Your task to perform on an android device: turn on the 24-hour format for clock Image 0: 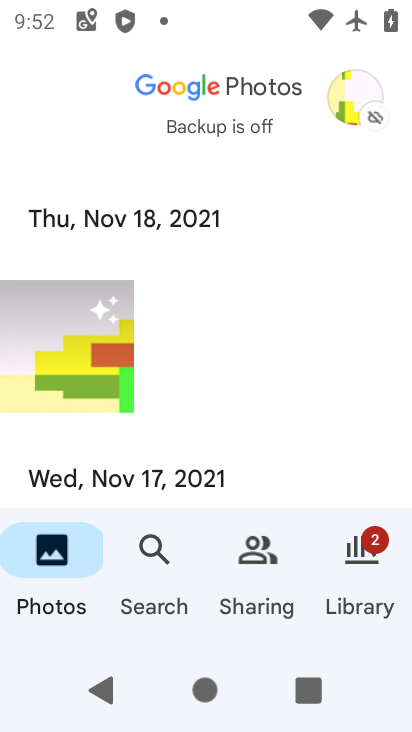
Step 0: press home button
Your task to perform on an android device: turn on the 24-hour format for clock Image 1: 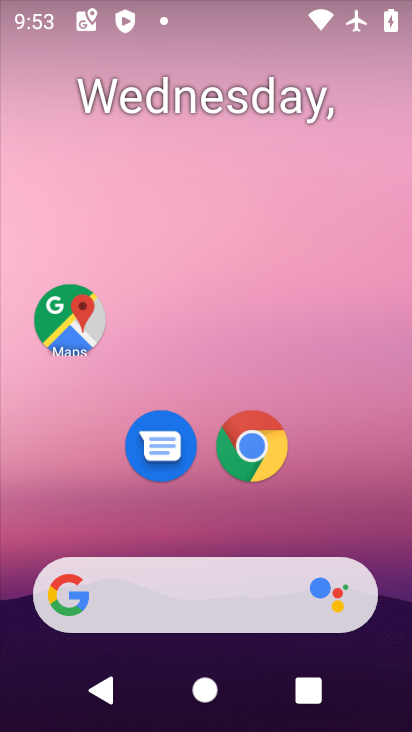
Step 1: press home button
Your task to perform on an android device: turn on the 24-hour format for clock Image 2: 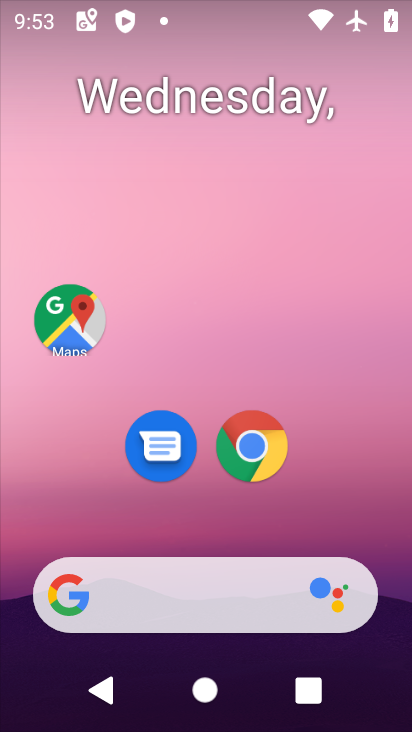
Step 2: drag from (159, 594) to (270, 157)
Your task to perform on an android device: turn on the 24-hour format for clock Image 3: 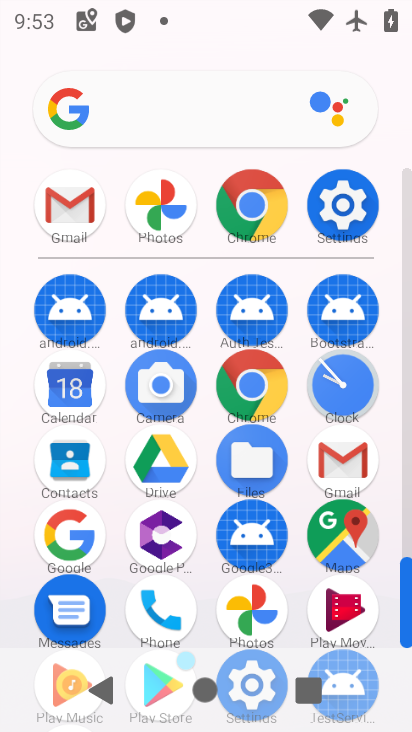
Step 3: click (336, 400)
Your task to perform on an android device: turn on the 24-hour format for clock Image 4: 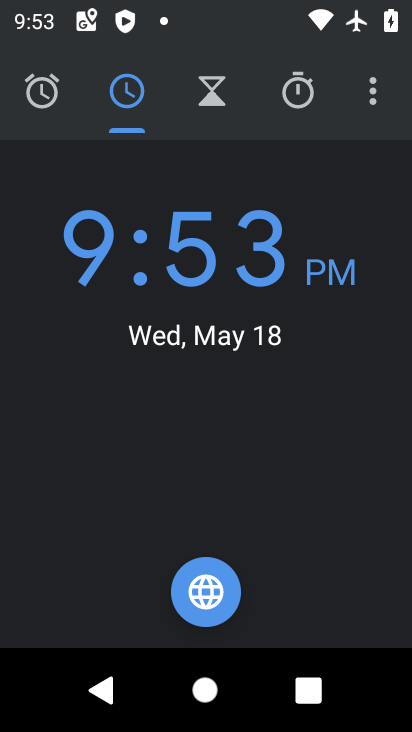
Step 4: click (377, 96)
Your task to perform on an android device: turn on the 24-hour format for clock Image 5: 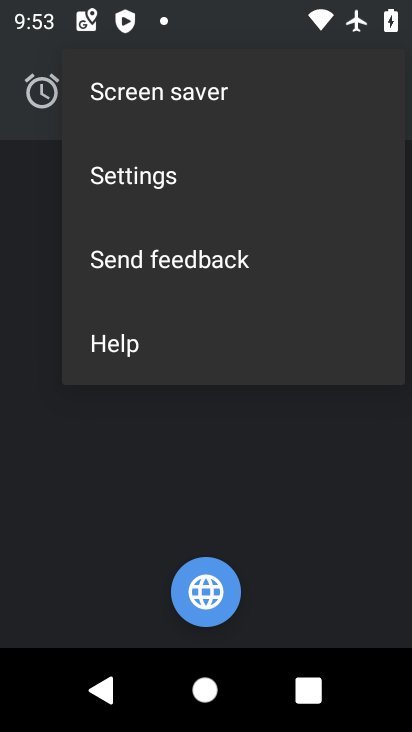
Step 5: click (158, 168)
Your task to perform on an android device: turn on the 24-hour format for clock Image 6: 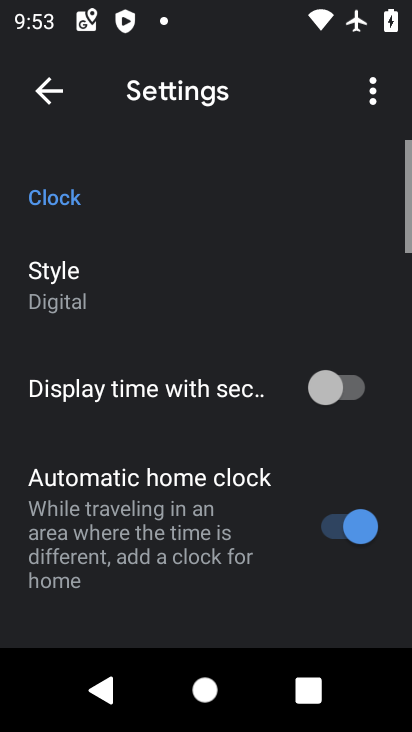
Step 6: drag from (242, 596) to (358, 171)
Your task to perform on an android device: turn on the 24-hour format for clock Image 7: 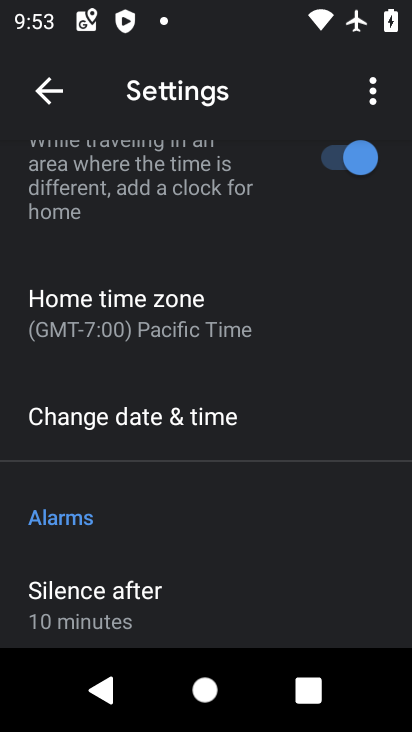
Step 7: click (212, 415)
Your task to perform on an android device: turn on the 24-hour format for clock Image 8: 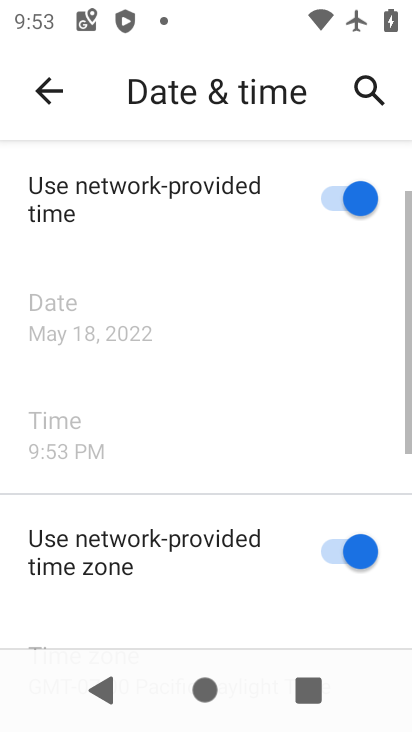
Step 8: drag from (215, 549) to (309, 216)
Your task to perform on an android device: turn on the 24-hour format for clock Image 9: 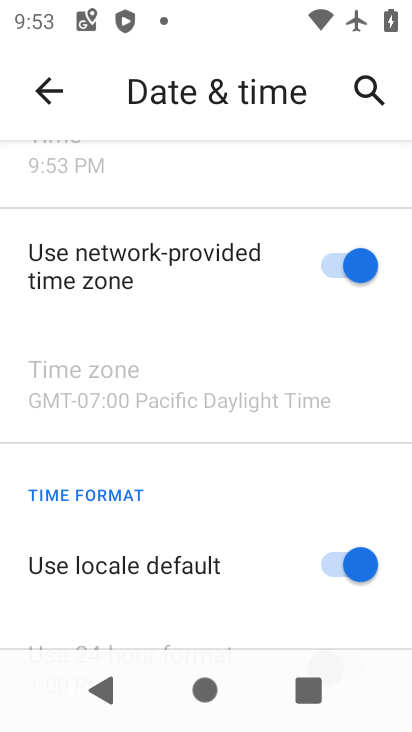
Step 9: drag from (173, 596) to (312, 144)
Your task to perform on an android device: turn on the 24-hour format for clock Image 10: 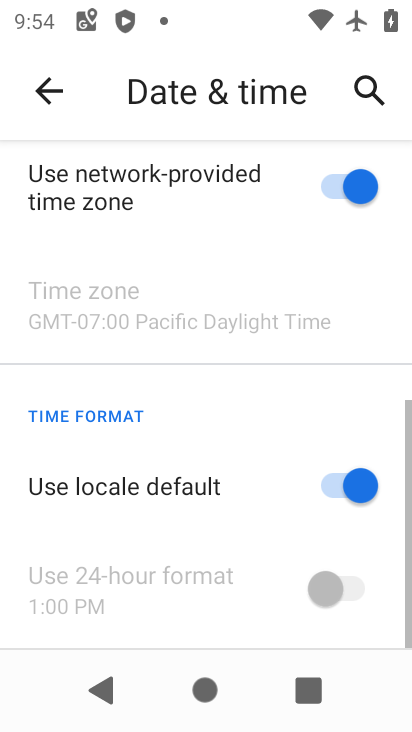
Step 10: click (340, 486)
Your task to perform on an android device: turn on the 24-hour format for clock Image 11: 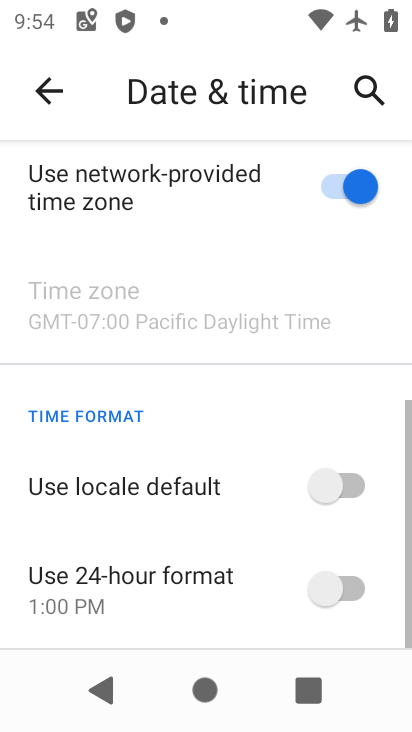
Step 11: click (349, 593)
Your task to perform on an android device: turn on the 24-hour format for clock Image 12: 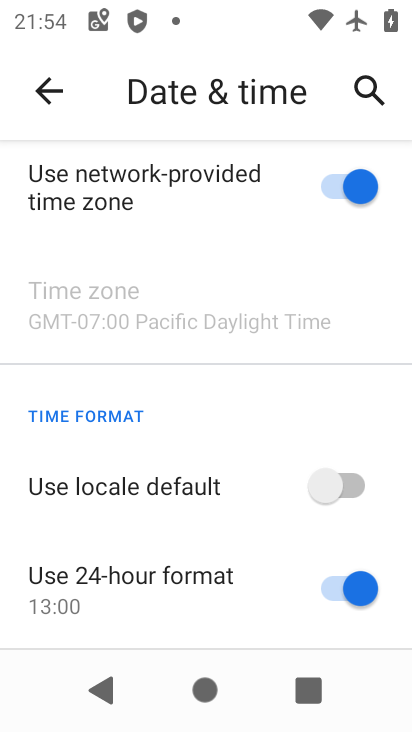
Step 12: task complete